Your task to perform on an android device: Install the Wikipedia app Image 0: 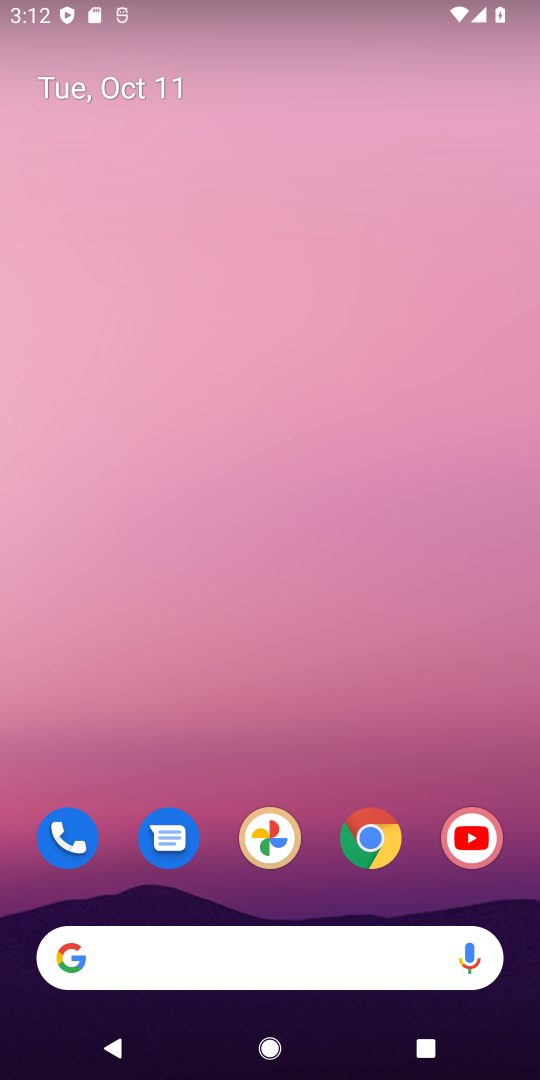
Step 0: drag from (290, 722) to (297, 212)
Your task to perform on an android device: Install the Wikipedia app Image 1: 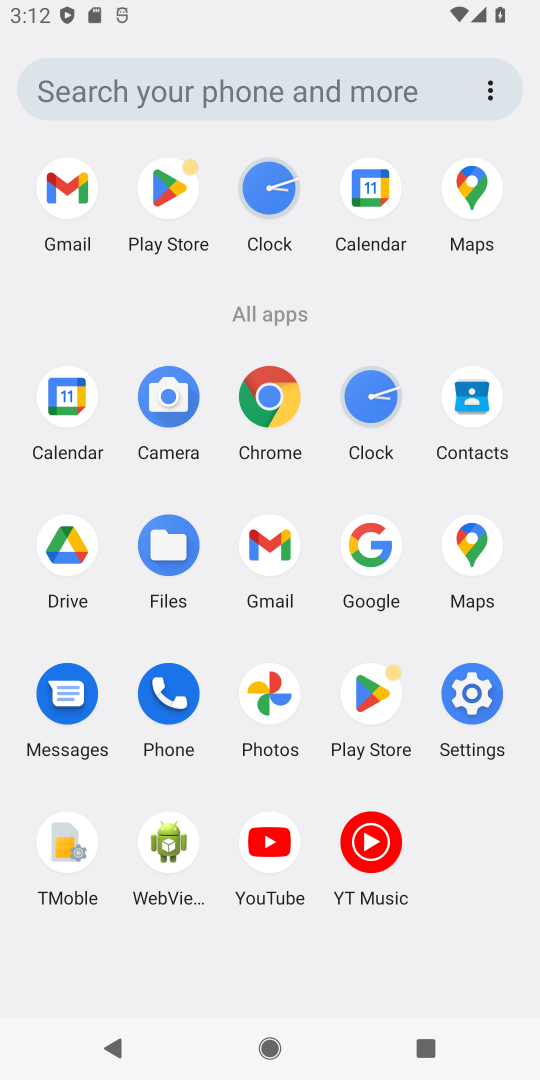
Step 1: click (386, 695)
Your task to perform on an android device: Install the Wikipedia app Image 2: 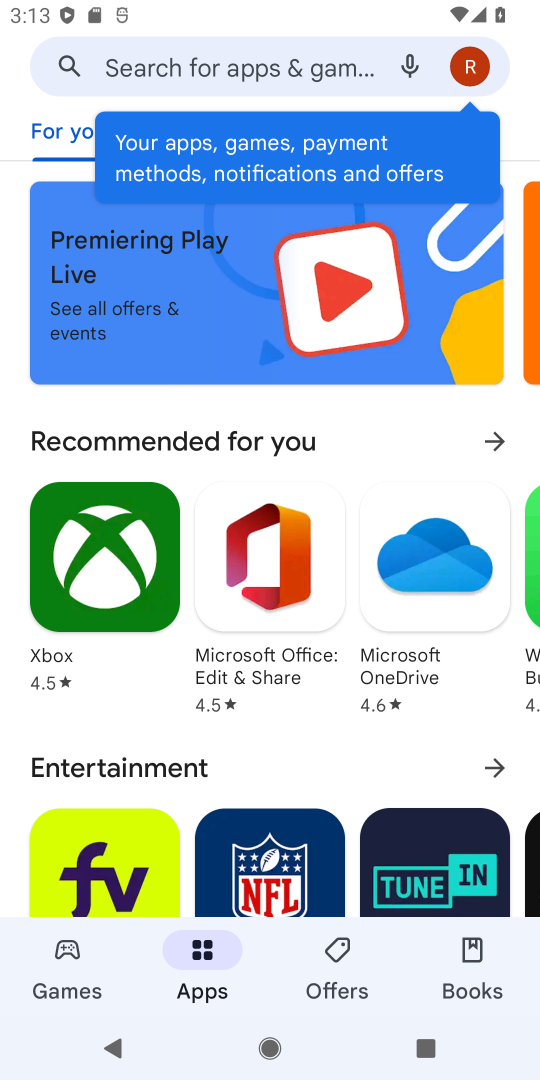
Step 2: click (292, 65)
Your task to perform on an android device: Install the Wikipedia app Image 3: 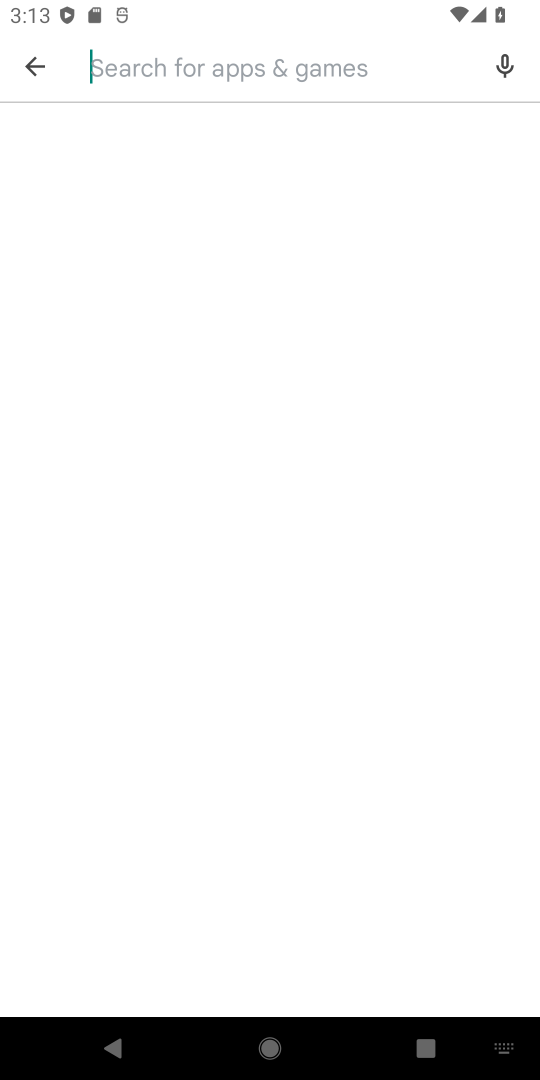
Step 3: type "Wikipedia app"
Your task to perform on an android device: Install the Wikipedia app Image 4: 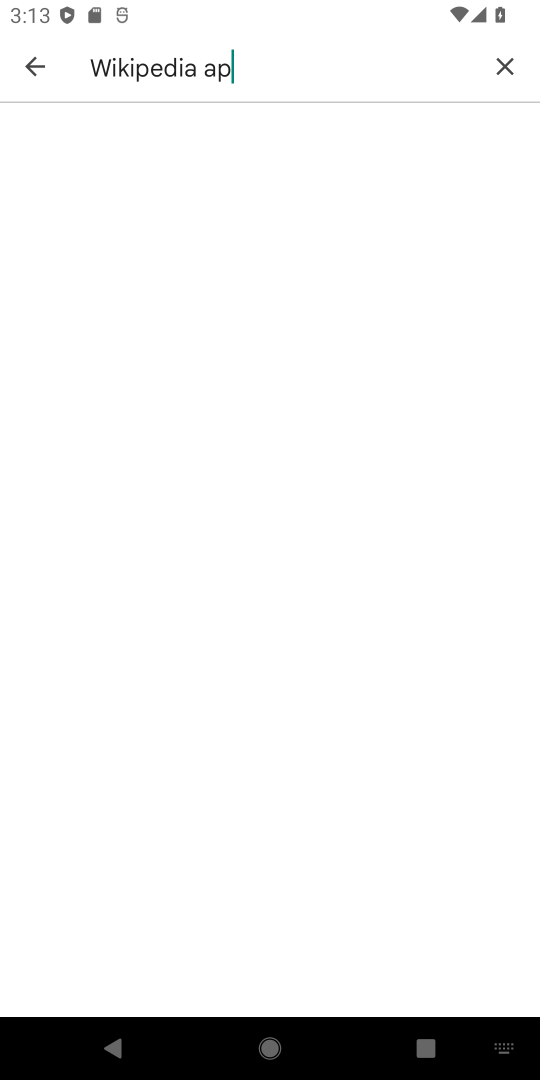
Step 4: type ""
Your task to perform on an android device: Install the Wikipedia app Image 5: 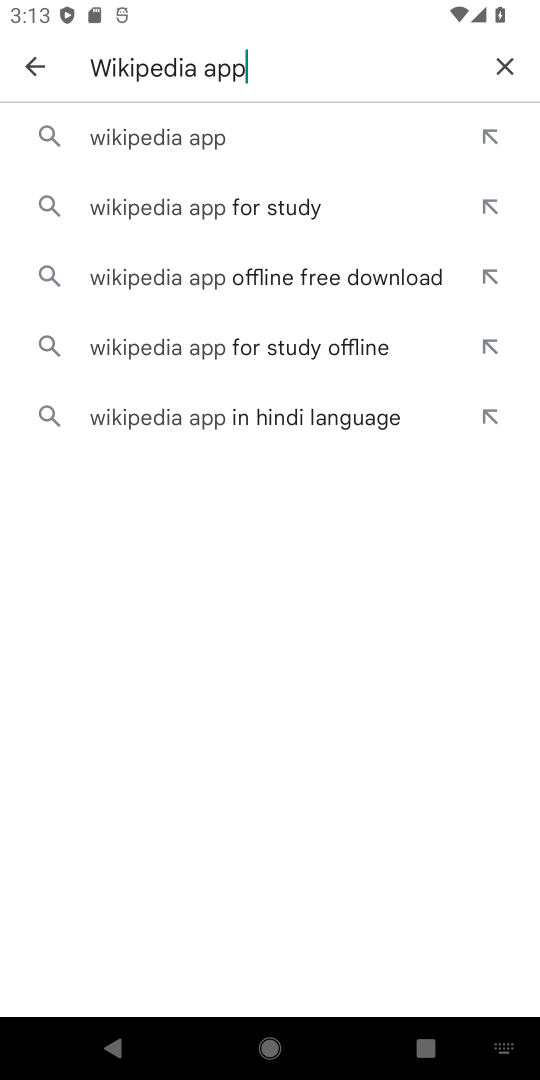
Step 5: click (255, 123)
Your task to perform on an android device: Install the Wikipedia app Image 6: 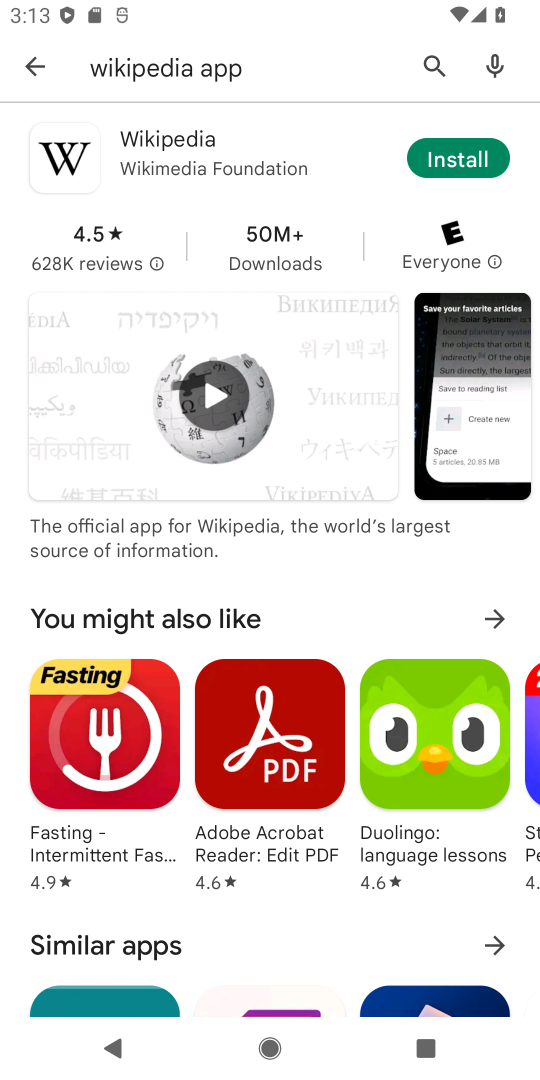
Step 6: click (458, 162)
Your task to perform on an android device: Install the Wikipedia app Image 7: 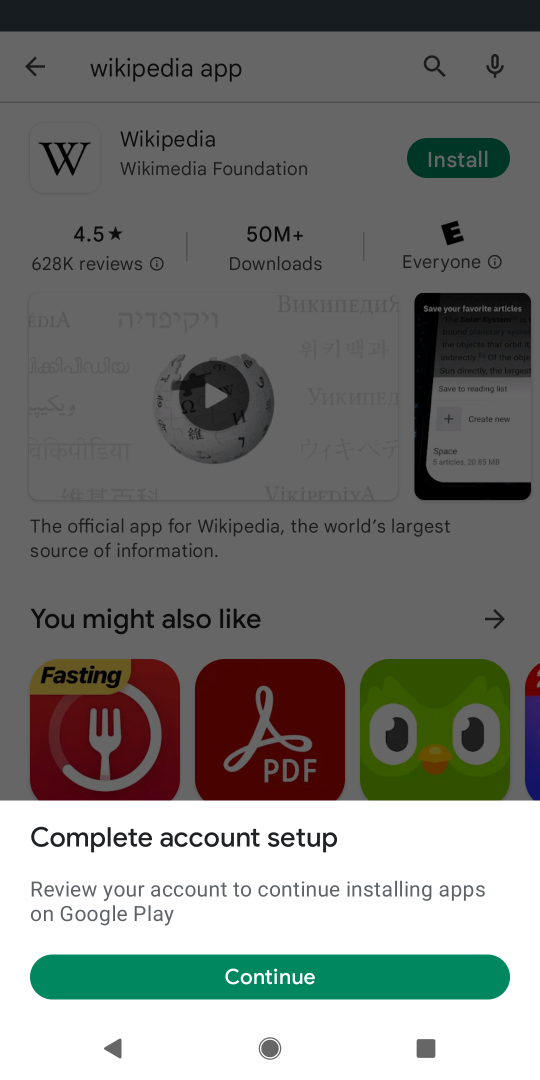
Step 7: click (232, 976)
Your task to perform on an android device: Install the Wikipedia app Image 8: 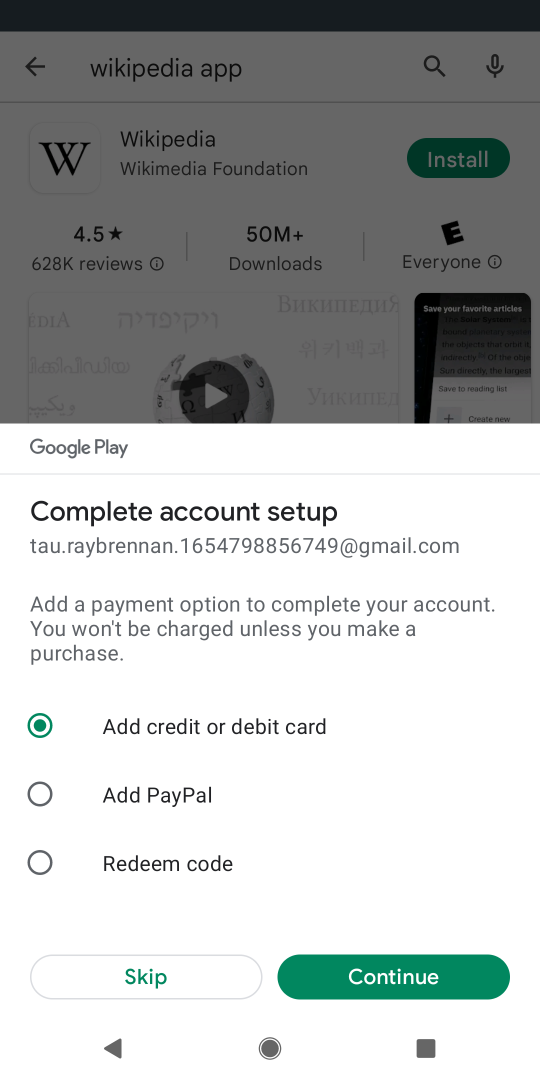
Step 8: click (118, 972)
Your task to perform on an android device: Install the Wikipedia app Image 9: 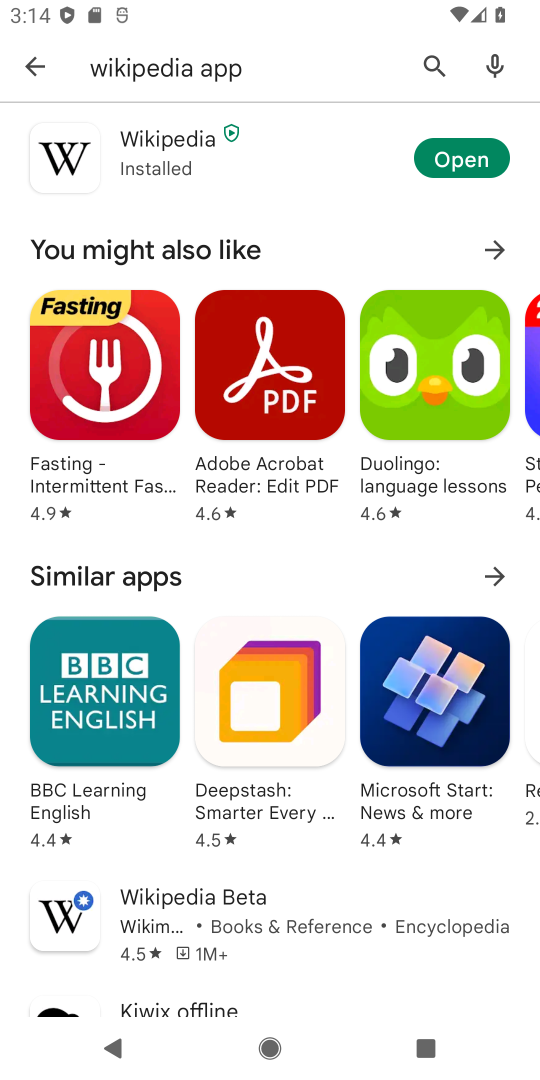
Step 9: task complete